Your task to perform on an android device: change text size in settings app Image 0: 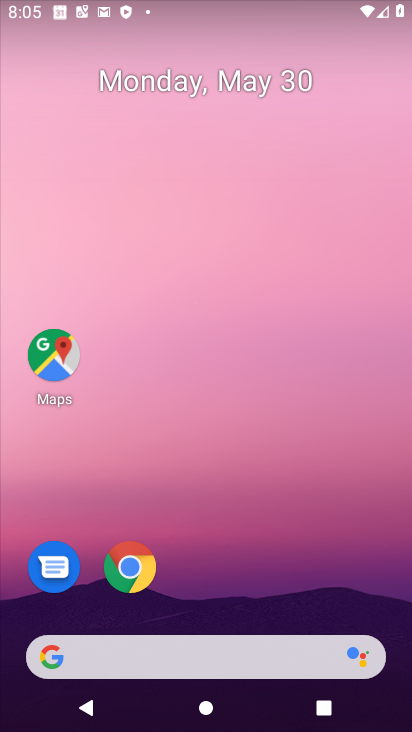
Step 0: drag from (194, 575) to (178, 154)
Your task to perform on an android device: change text size in settings app Image 1: 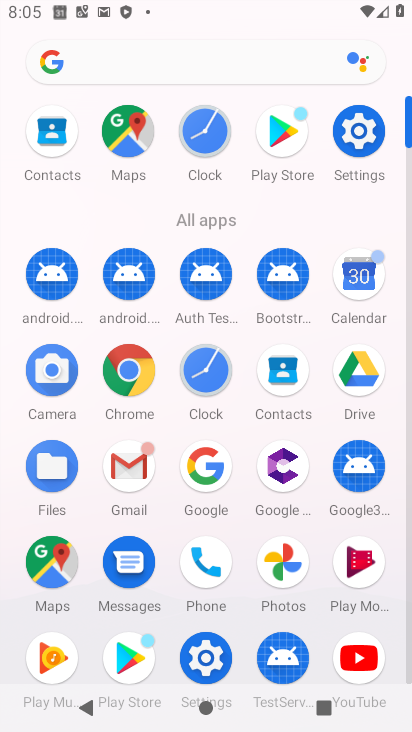
Step 1: click (357, 148)
Your task to perform on an android device: change text size in settings app Image 2: 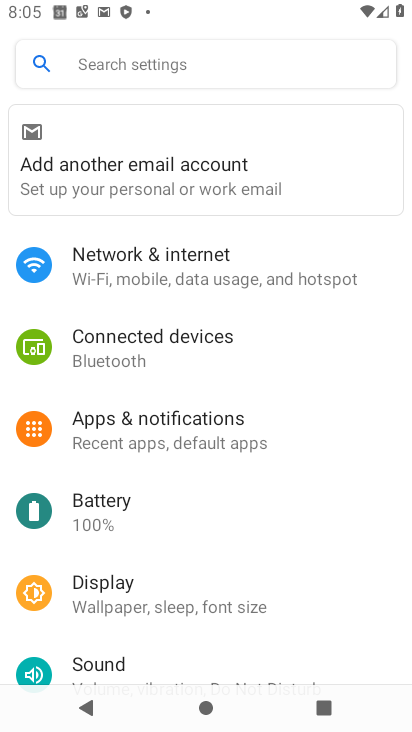
Step 2: click (161, 586)
Your task to perform on an android device: change text size in settings app Image 3: 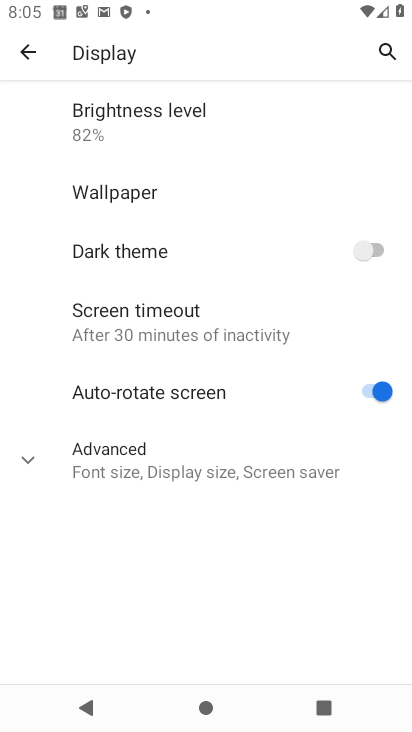
Step 3: task complete